Your task to perform on an android device: Search for usb-c on bestbuy.com, select the first entry, and add it to the cart. Image 0: 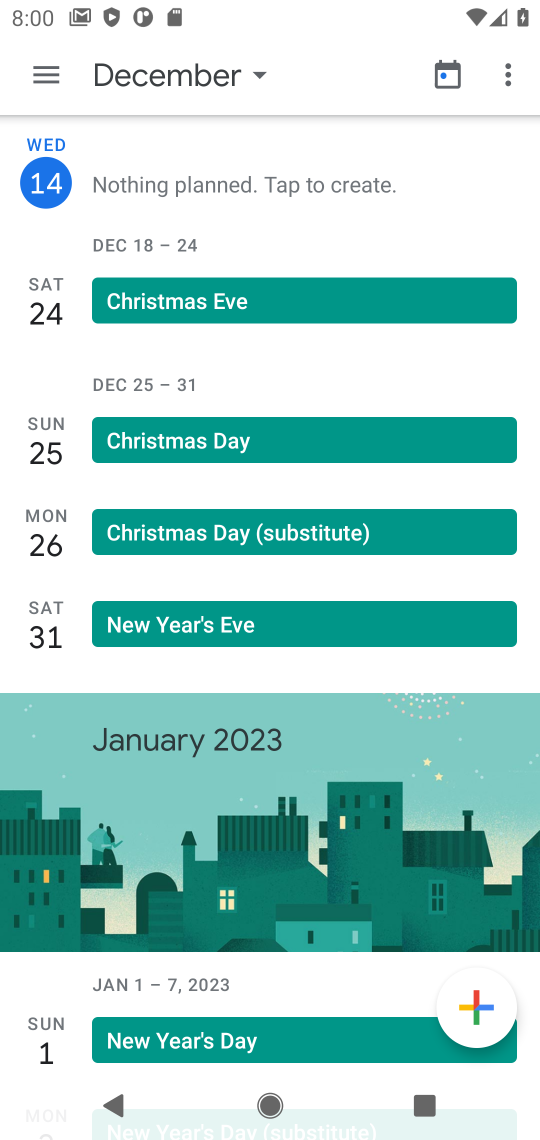
Step 0: press home button
Your task to perform on an android device: Search for usb-c on bestbuy.com, select the first entry, and add it to the cart. Image 1: 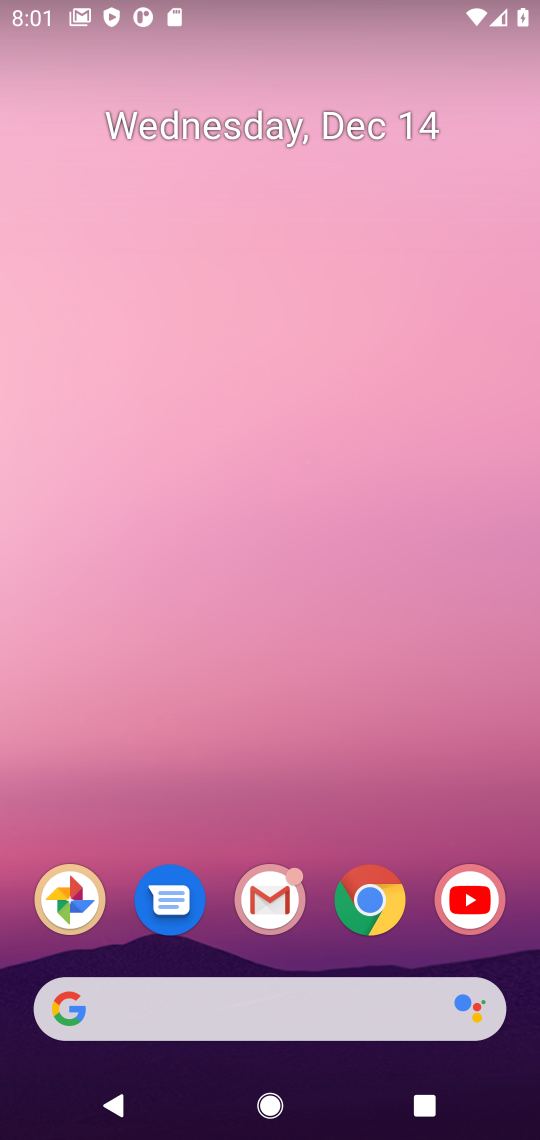
Step 1: click (379, 896)
Your task to perform on an android device: Search for usb-c on bestbuy.com, select the first entry, and add it to the cart. Image 2: 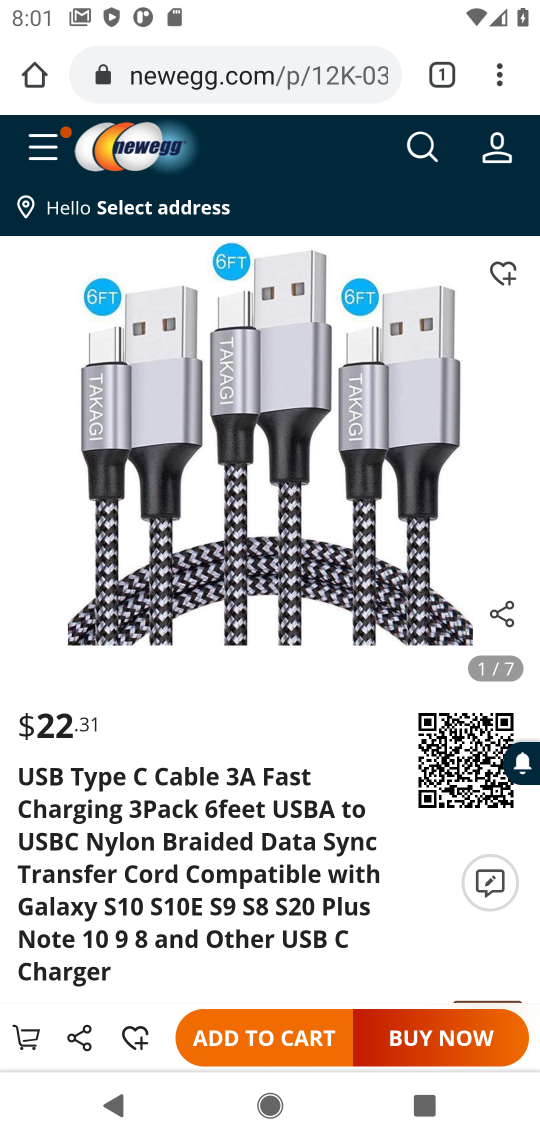
Step 2: click (265, 82)
Your task to perform on an android device: Search for usb-c on bestbuy.com, select the first entry, and add it to the cart. Image 3: 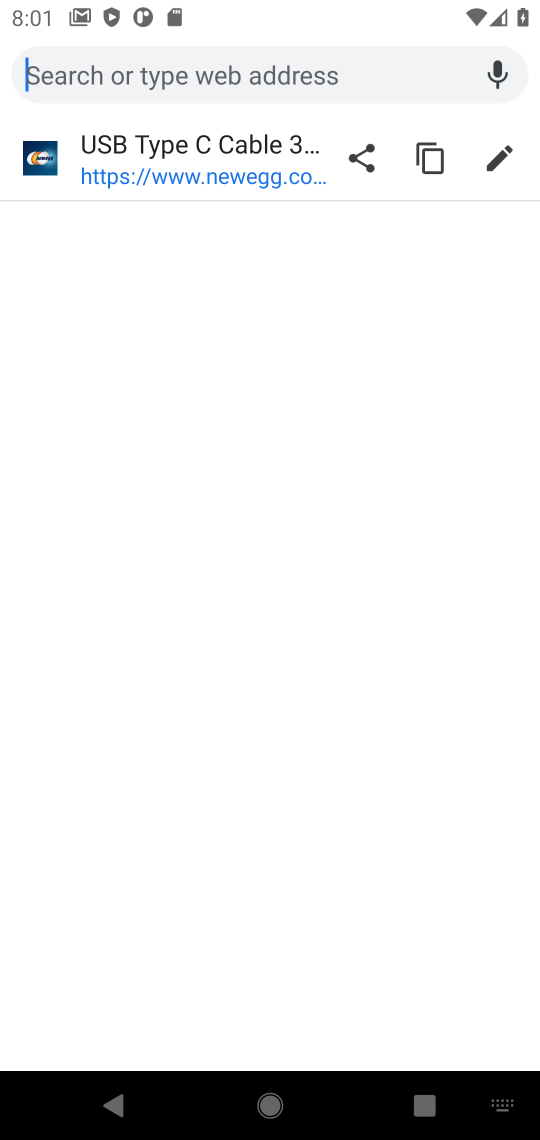
Step 3: type "bestbuy.com"
Your task to perform on an android device: Search for usb-c on bestbuy.com, select the first entry, and add it to the cart. Image 4: 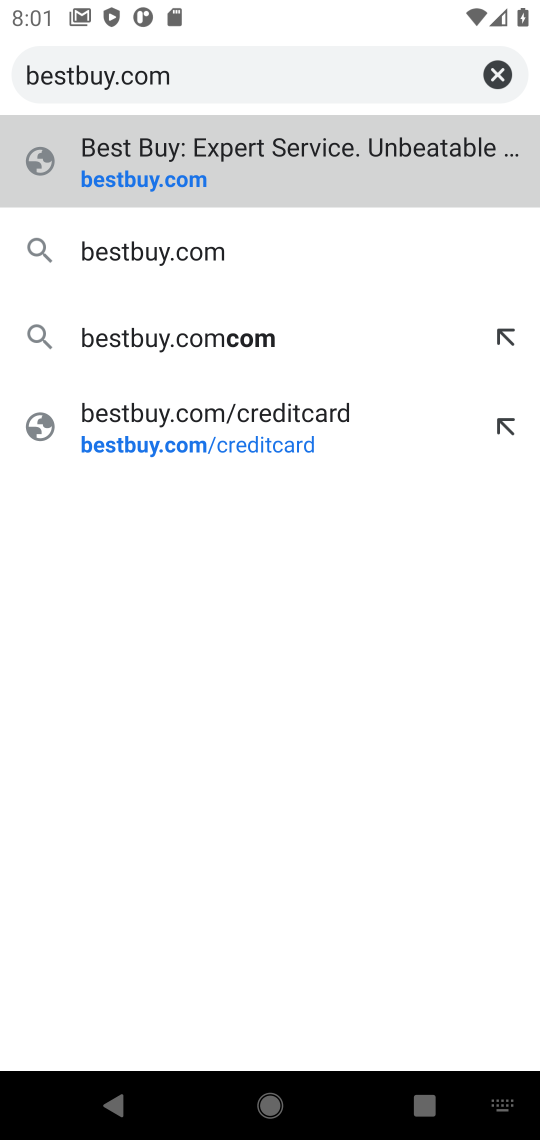
Step 4: click (194, 170)
Your task to perform on an android device: Search for usb-c on bestbuy.com, select the first entry, and add it to the cart. Image 5: 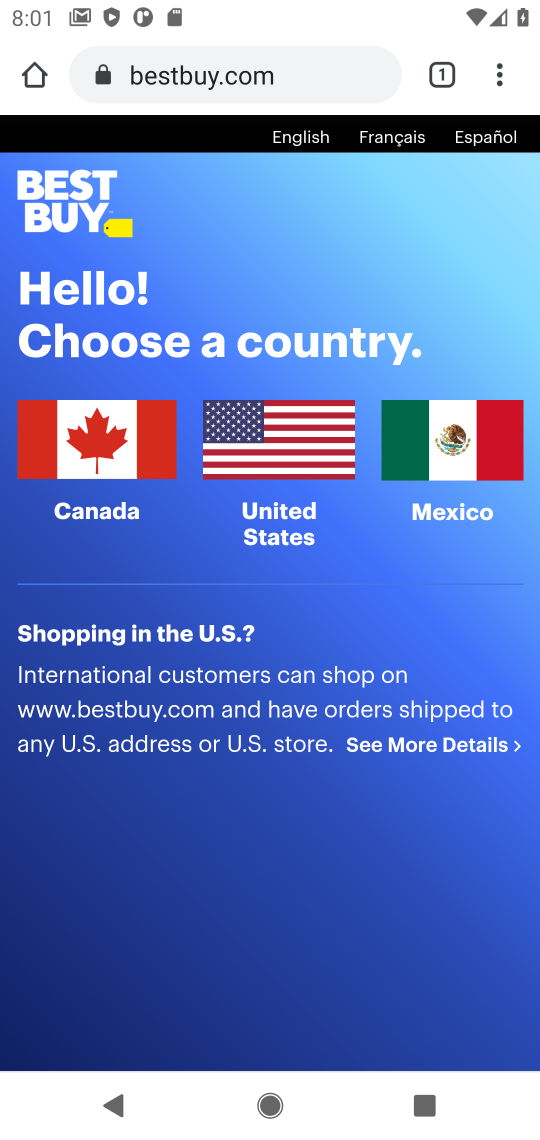
Step 5: click (255, 432)
Your task to perform on an android device: Search for usb-c on bestbuy.com, select the first entry, and add it to the cart. Image 6: 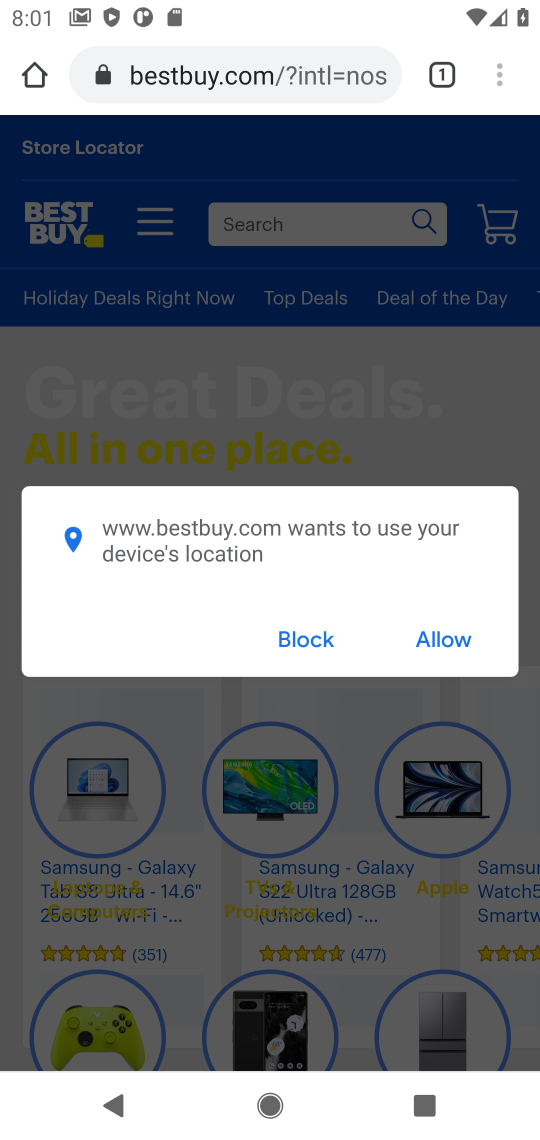
Step 6: click (315, 641)
Your task to perform on an android device: Search for usb-c on bestbuy.com, select the first entry, and add it to the cart. Image 7: 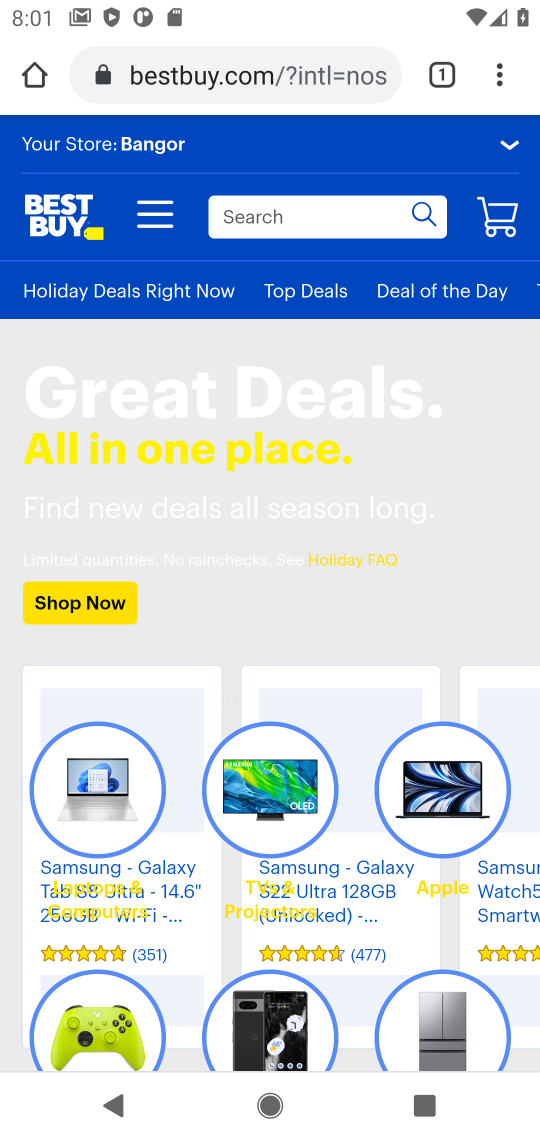
Step 7: click (268, 225)
Your task to perform on an android device: Search for usb-c on bestbuy.com, select the first entry, and add it to the cart. Image 8: 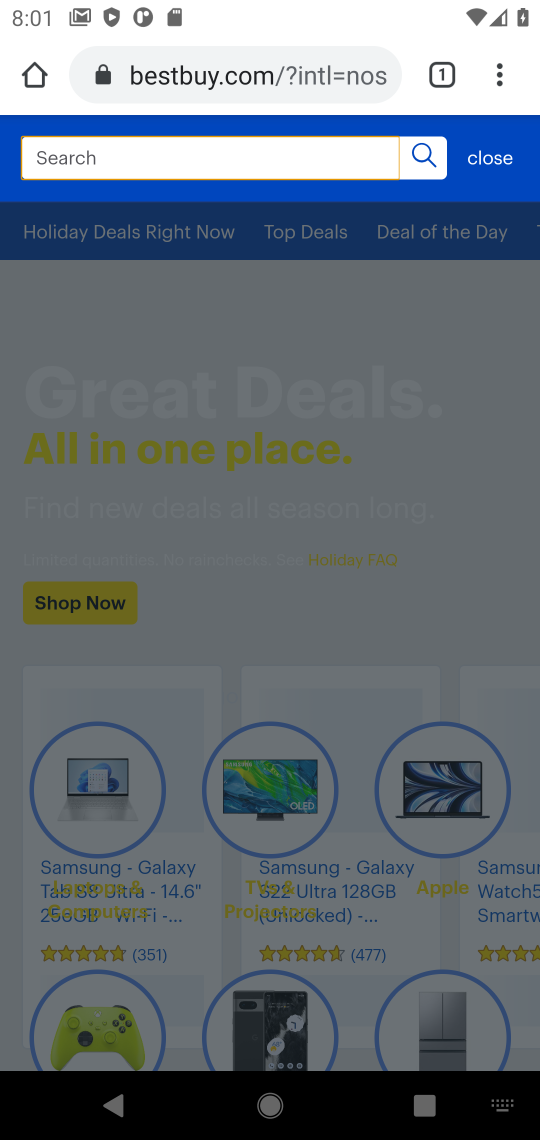
Step 8: type "usb-c"
Your task to perform on an android device: Search for usb-c on bestbuy.com, select the first entry, and add it to the cart. Image 9: 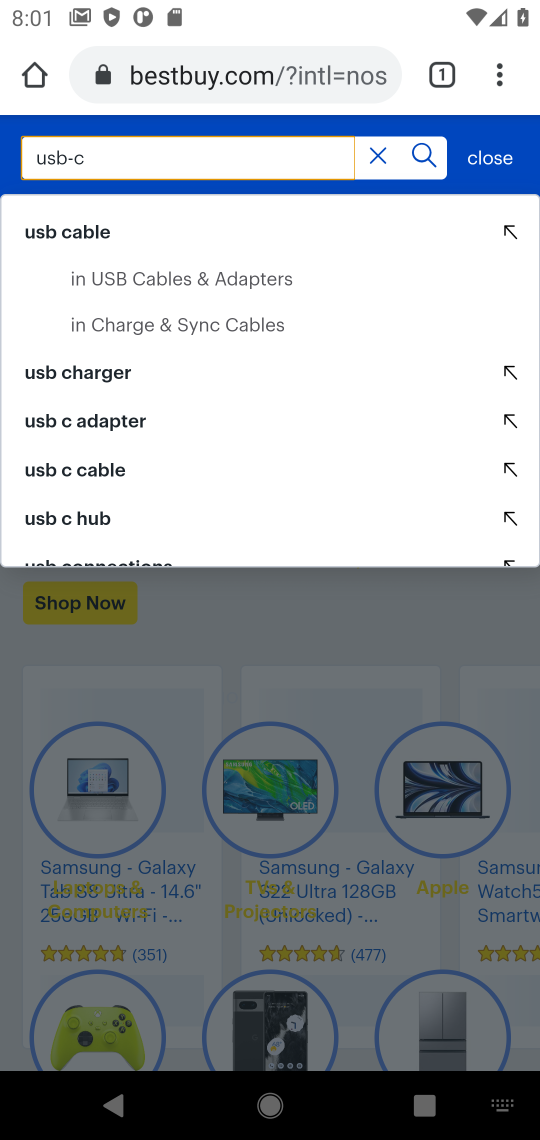
Step 9: click (59, 474)
Your task to perform on an android device: Search for usb-c on bestbuy.com, select the first entry, and add it to the cart. Image 10: 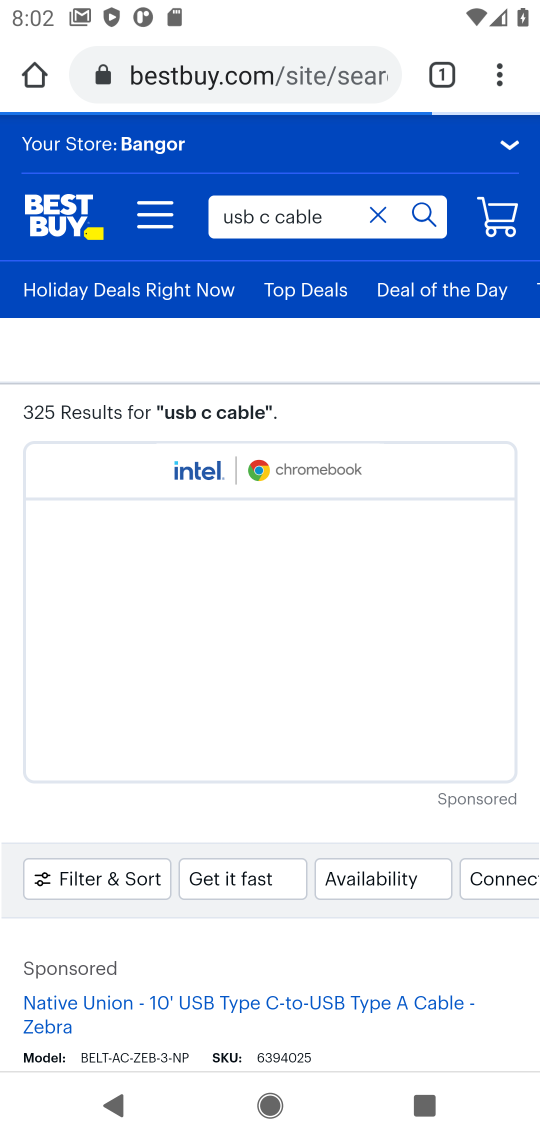
Step 10: drag from (188, 908) to (176, 409)
Your task to perform on an android device: Search for usb-c on bestbuy.com, select the first entry, and add it to the cart. Image 11: 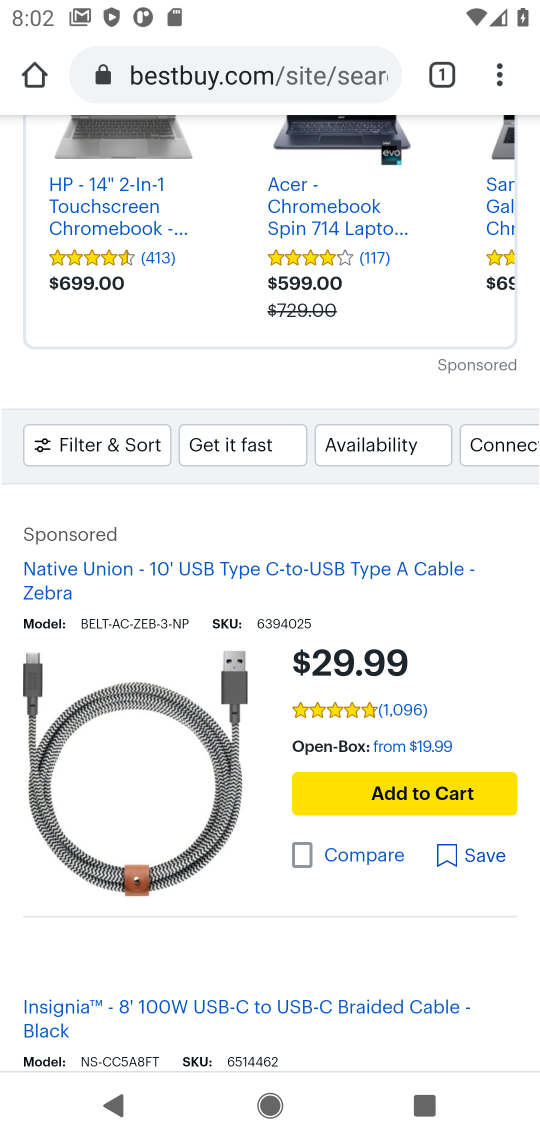
Step 11: click (333, 786)
Your task to perform on an android device: Search for usb-c on bestbuy.com, select the first entry, and add it to the cart. Image 12: 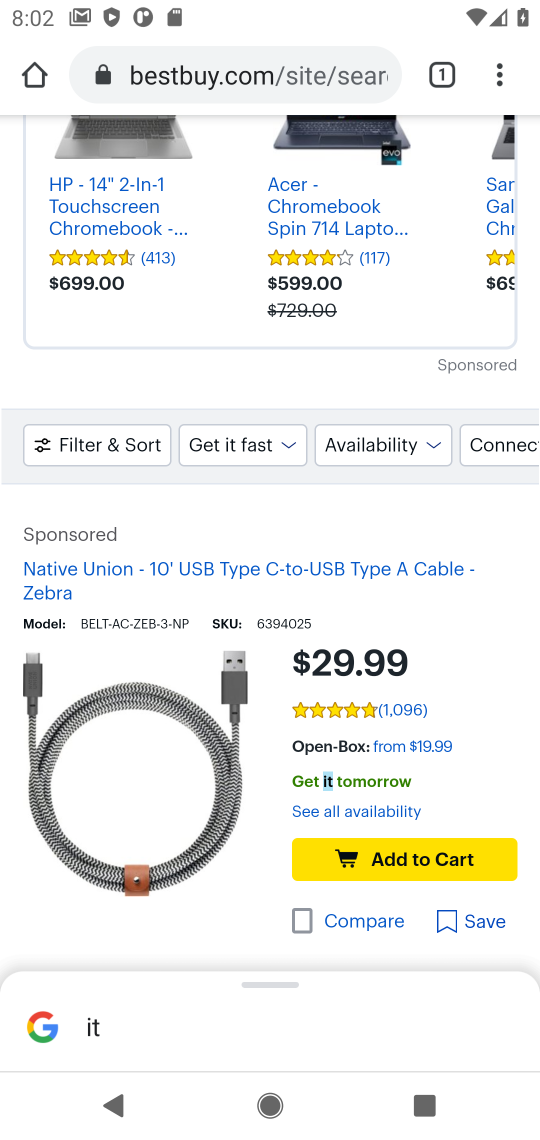
Step 12: click (358, 864)
Your task to perform on an android device: Search for usb-c on bestbuy.com, select the first entry, and add it to the cart. Image 13: 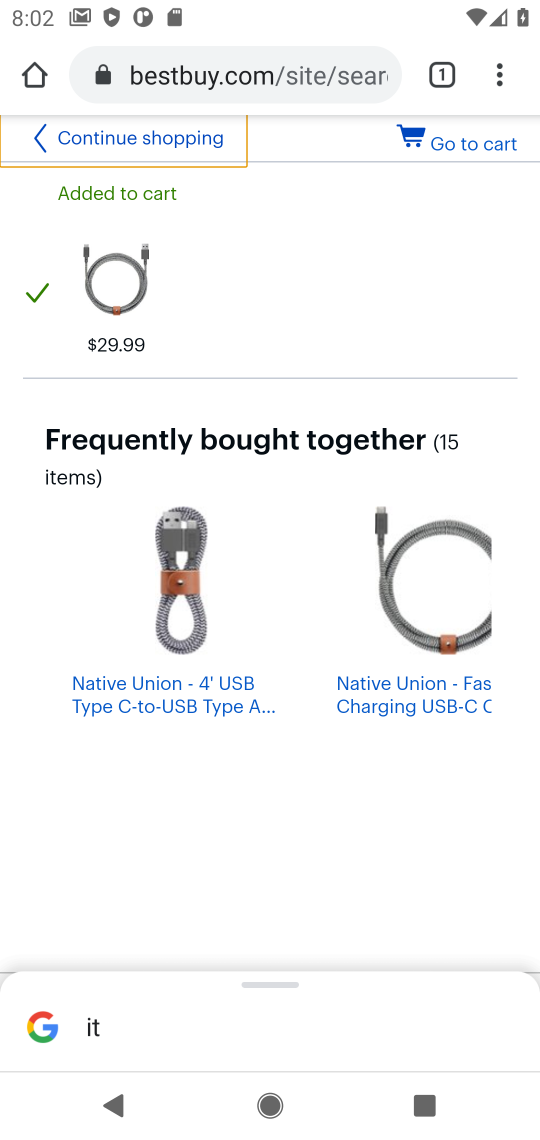
Step 13: task complete